Your task to perform on an android device: Open display settings Image 0: 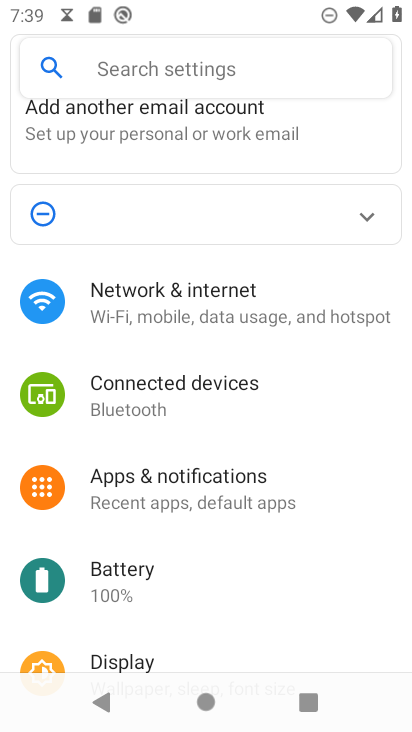
Step 0: press home button
Your task to perform on an android device: Open display settings Image 1: 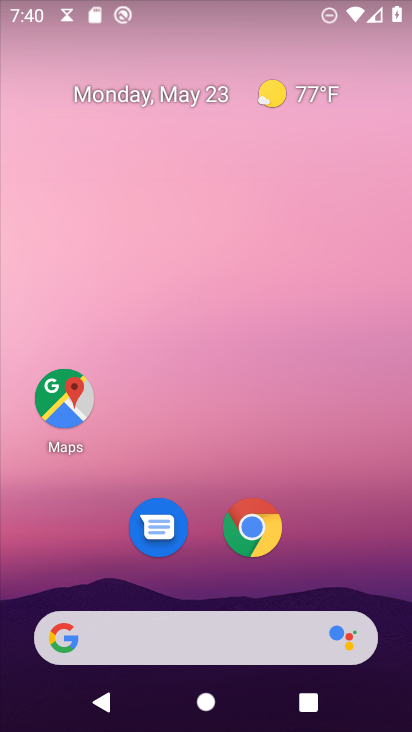
Step 1: drag from (276, 668) to (278, 165)
Your task to perform on an android device: Open display settings Image 2: 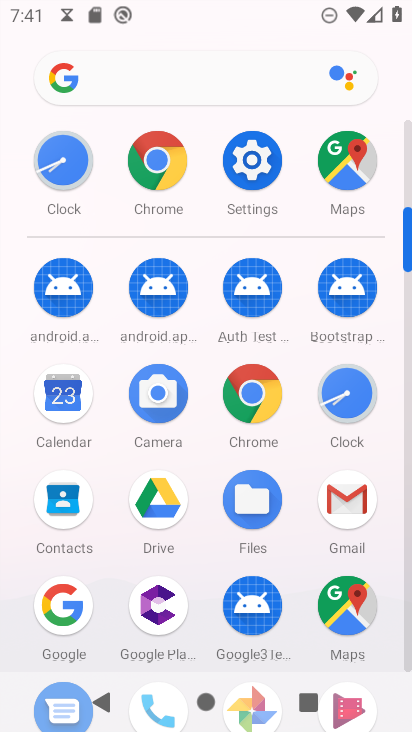
Step 2: click (257, 168)
Your task to perform on an android device: Open display settings Image 3: 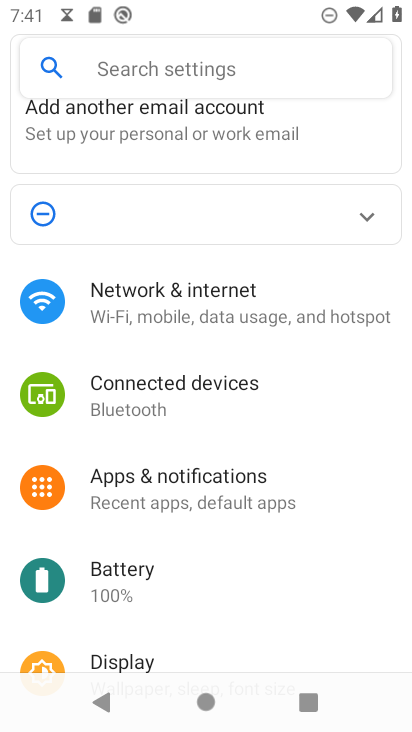
Step 3: click (130, 648)
Your task to perform on an android device: Open display settings Image 4: 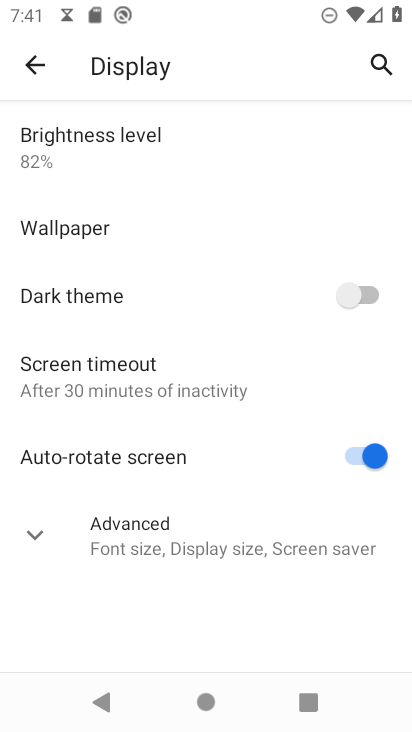
Step 4: task complete